Your task to perform on an android device: snooze an email in the gmail app Image 0: 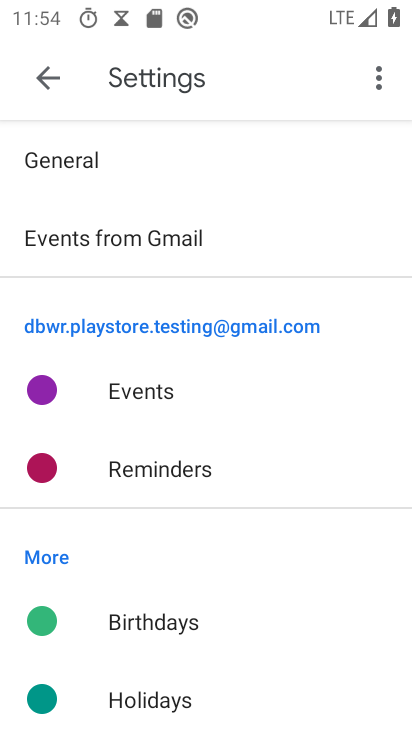
Step 0: press home button
Your task to perform on an android device: snooze an email in the gmail app Image 1: 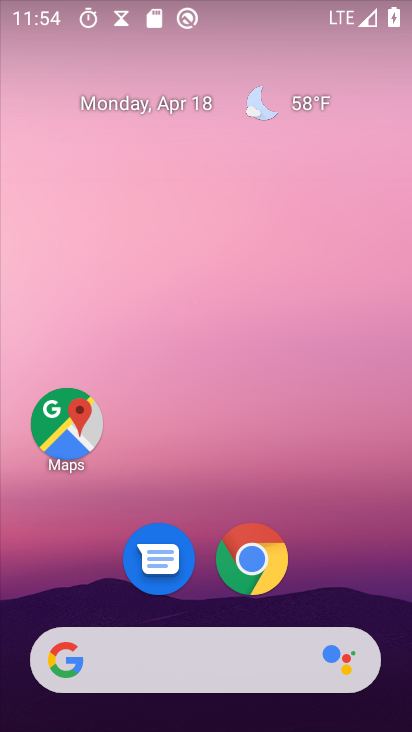
Step 1: drag from (323, 495) to (226, 153)
Your task to perform on an android device: snooze an email in the gmail app Image 2: 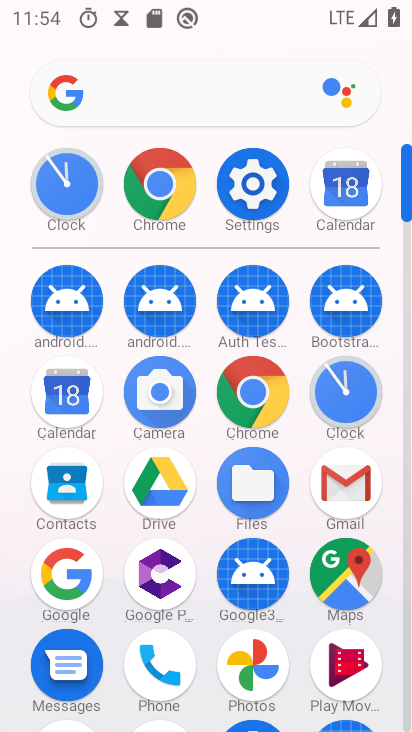
Step 2: click (326, 470)
Your task to perform on an android device: snooze an email in the gmail app Image 3: 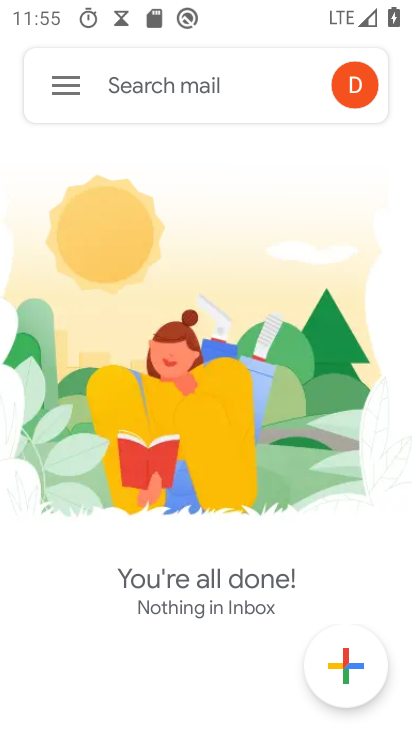
Step 3: click (63, 74)
Your task to perform on an android device: snooze an email in the gmail app Image 4: 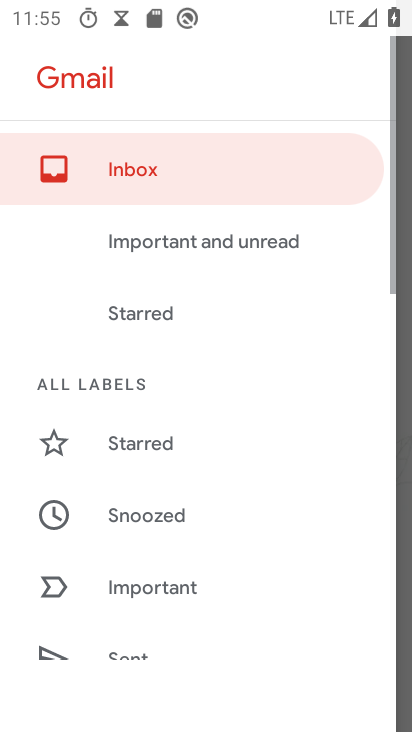
Step 4: click (135, 167)
Your task to perform on an android device: snooze an email in the gmail app Image 5: 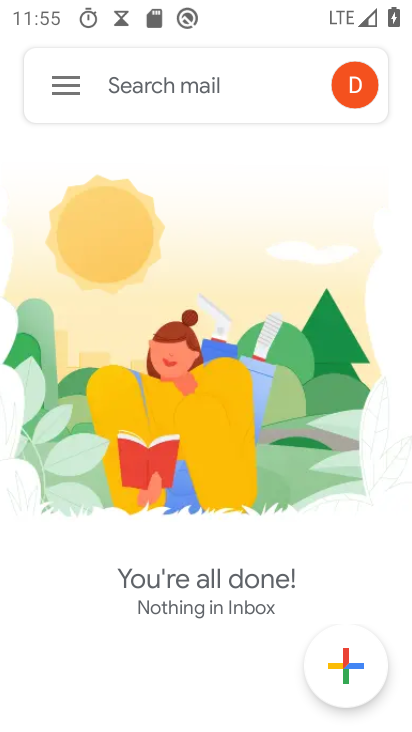
Step 5: task complete